Your task to perform on an android device: toggle notification dots Image 0: 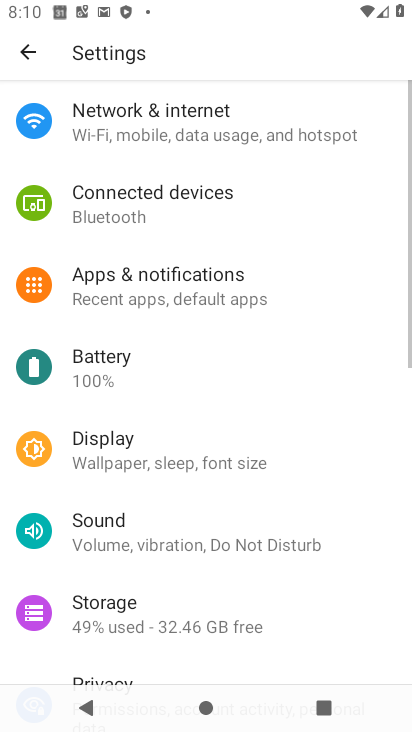
Step 0: click (202, 310)
Your task to perform on an android device: toggle notification dots Image 1: 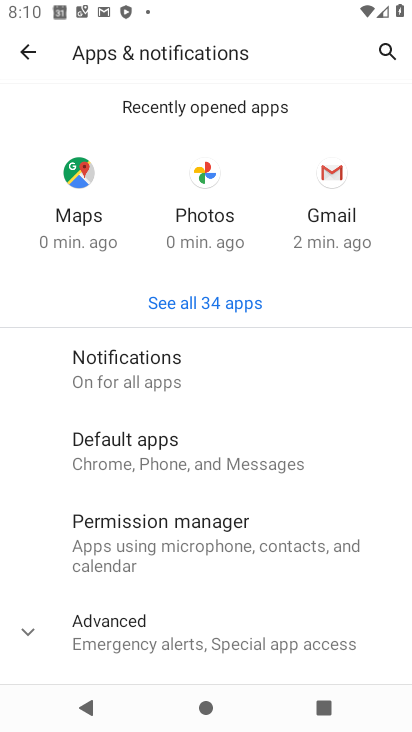
Step 1: click (168, 366)
Your task to perform on an android device: toggle notification dots Image 2: 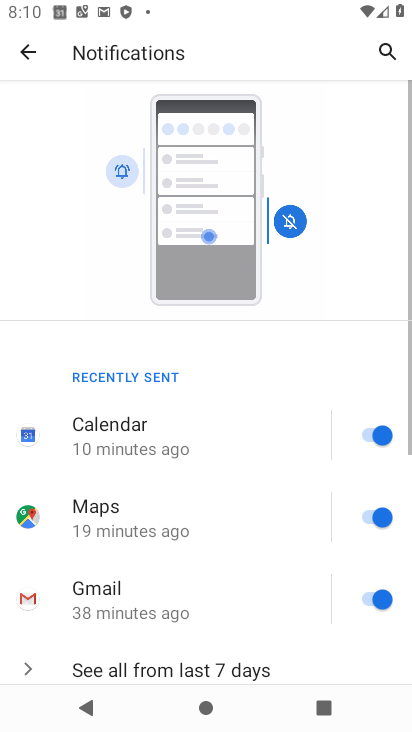
Step 2: drag from (241, 579) to (252, 121)
Your task to perform on an android device: toggle notification dots Image 3: 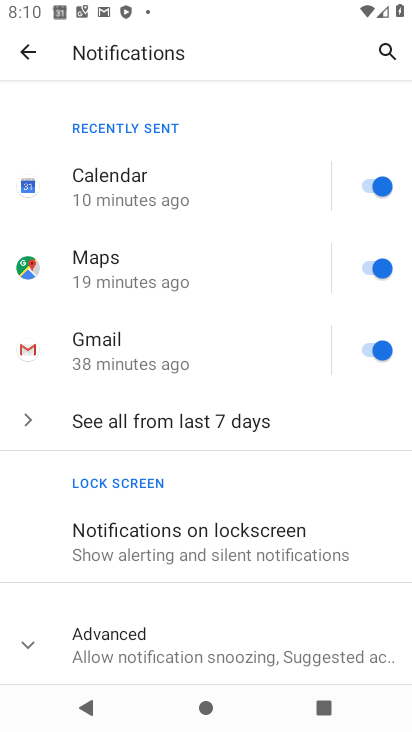
Step 3: click (224, 636)
Your task to perform on an android device: toggle notification dots Image 4: 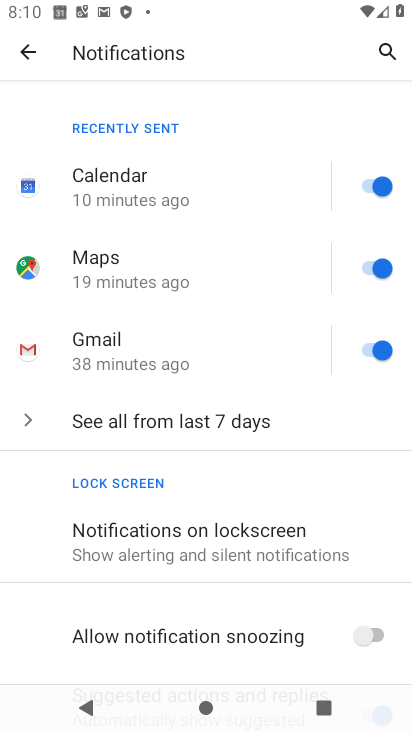
Step 4: drag from (141, 535) to (168, 123)
Your task to perform on an android device: toggle notification dots Image 5: 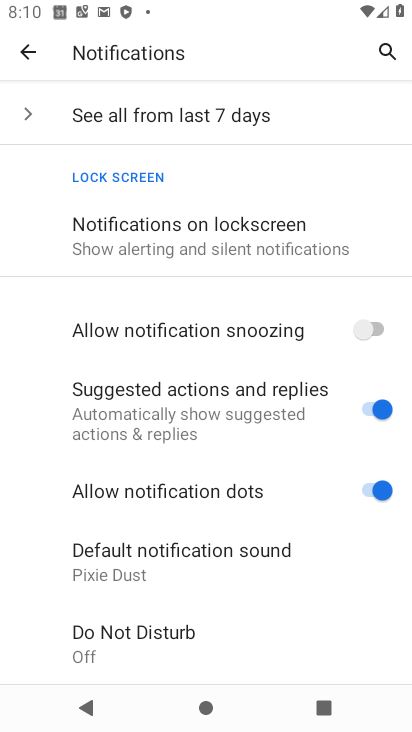
Step 5: click (272, 471)
Your task to perform on an android device: toggle notification dots Image 6: 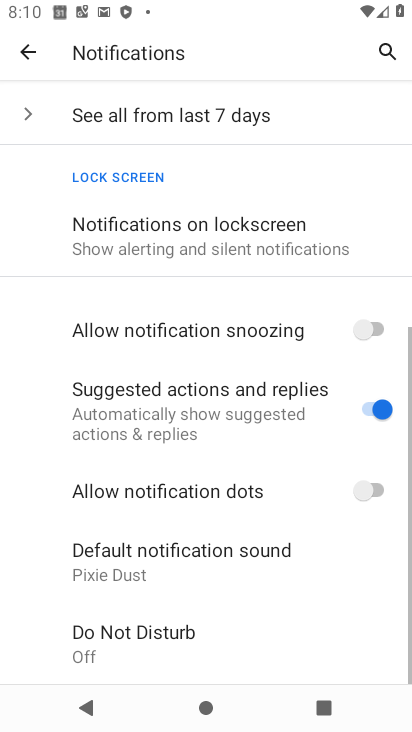
Step 6: task complete